Your task to perform on an android device: Open eBay Image 0: 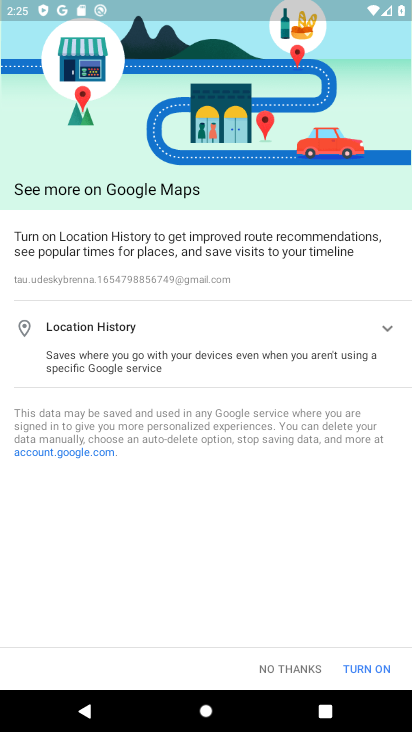
Step 0: press home button
Your task to perform on an android device: Open eBay Image 1: 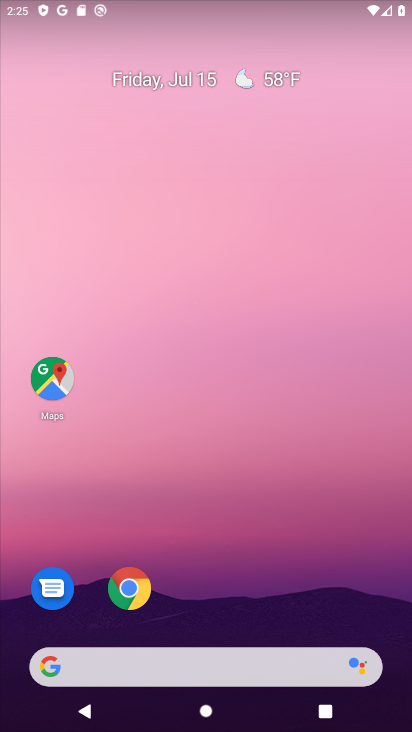
Step 1: drag from (267, 614) to (247, 344)
Your task to perform on an android device: Open eBay Image 2: 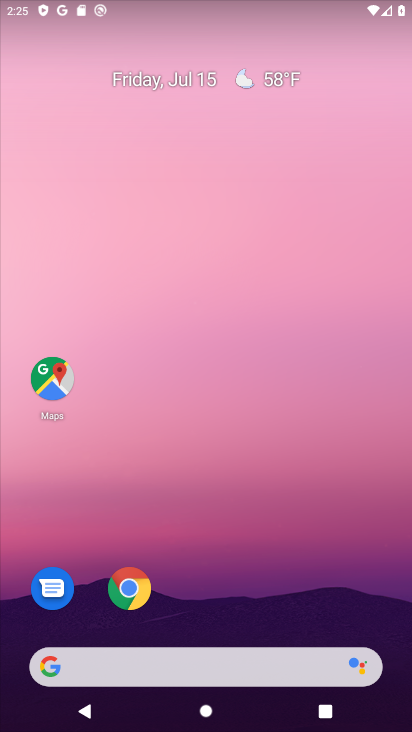
Step 2: click (117, 581)
Your task to perform on an android device: Open eBay Image 3: 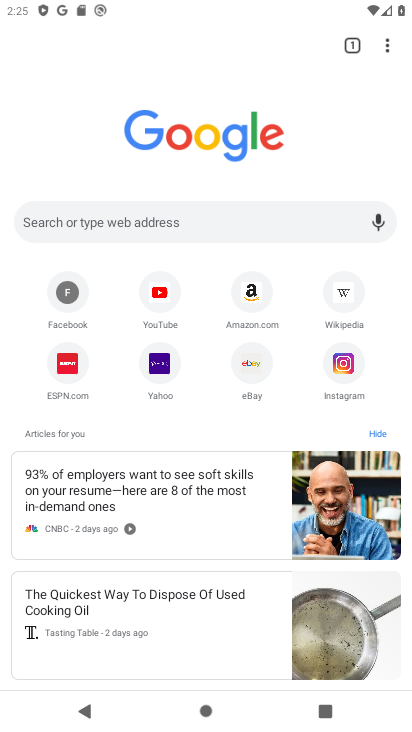
Step 3: click (262, 375)
Your task to perform on an android device: Open eBay Image 4: 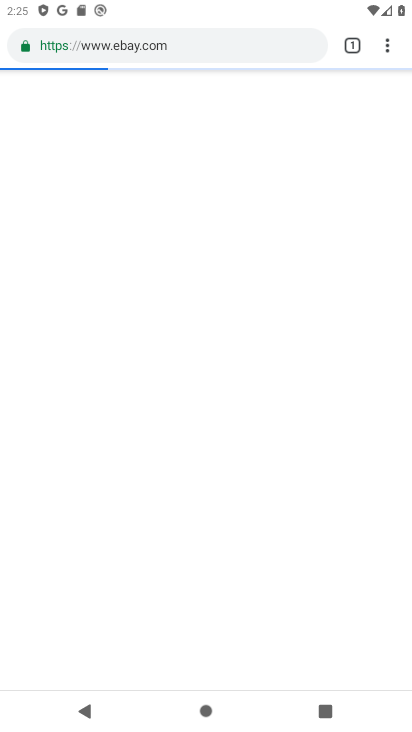
Step 4: task complete